Your task to perform on an android device: change alarm snooze length Image 0: 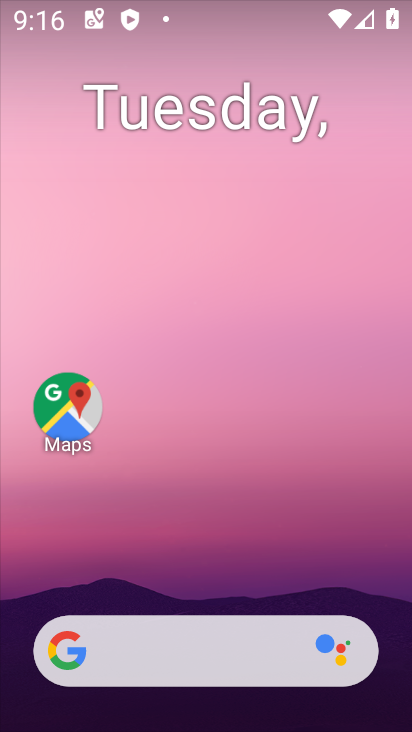
Step 0: drag from (213, 615) to (182, 50)
Your task to perform on an android device: change alarm snooze length Image 1: 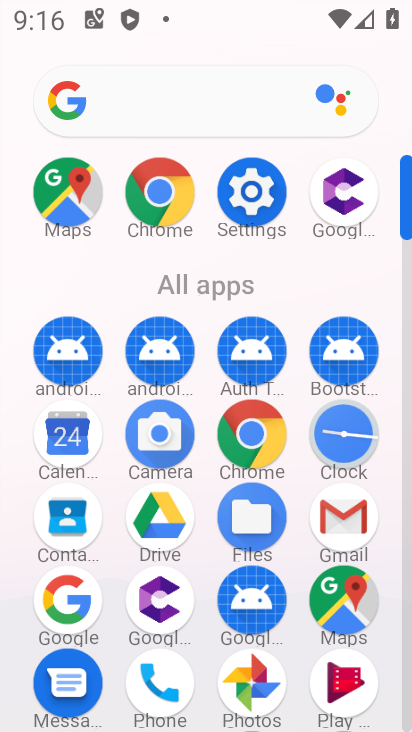
Step 1: click (339, 422)
Your task to perform on an android device: change alarm snooze length Image 2: 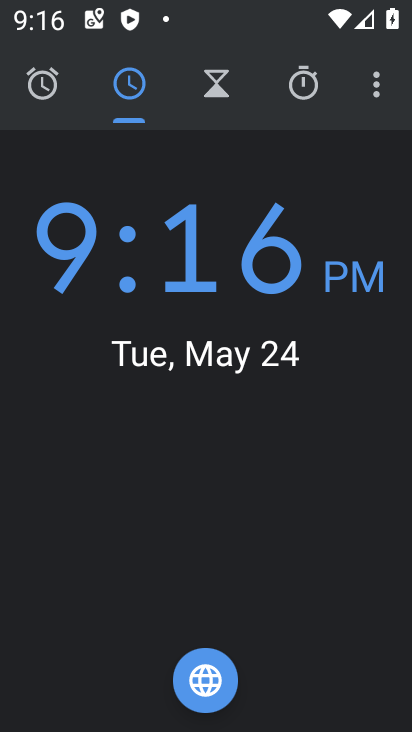
Step 2: click (360, 90)
Your task to perform on an android device: change alarm snooze length Image 3: 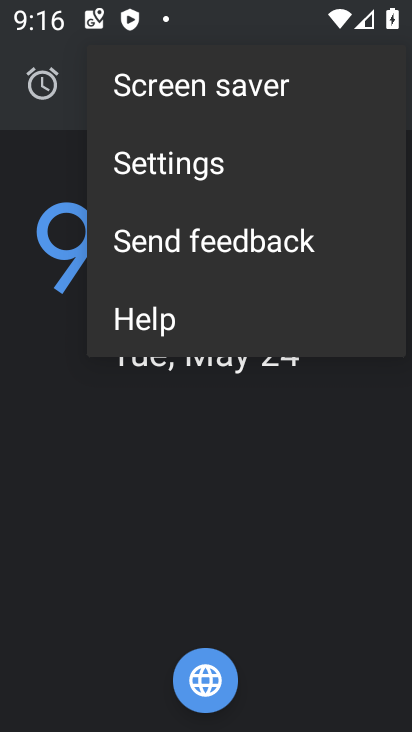
Step 3: click (179, 156)
Your task to perform on an android device: change alarm snooze length Image 4: 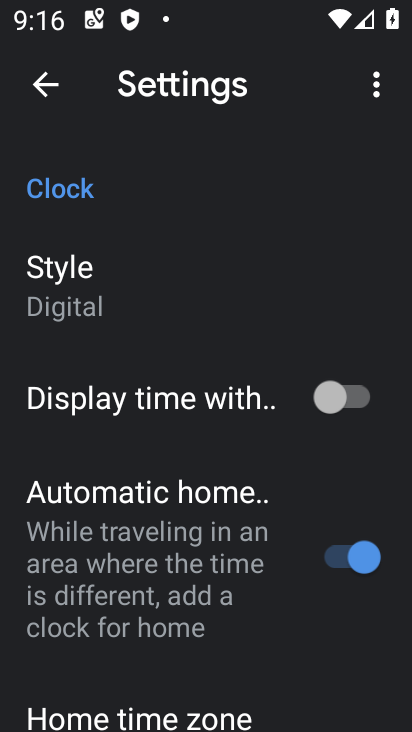
Step 4: drag from (247, 647) to (220, 190)
Your task to perform on an android device: change alarm snooze length Image 5: 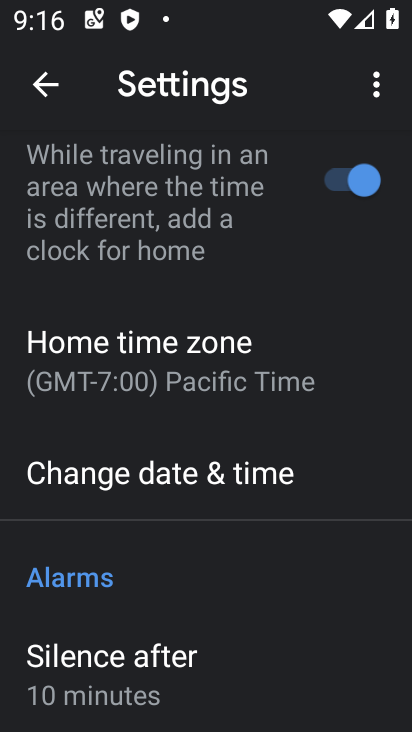
Step 5: drag from (131, 656) to (127, 255)
Your task to perform on an android device: change alarm snooze length Image 6: 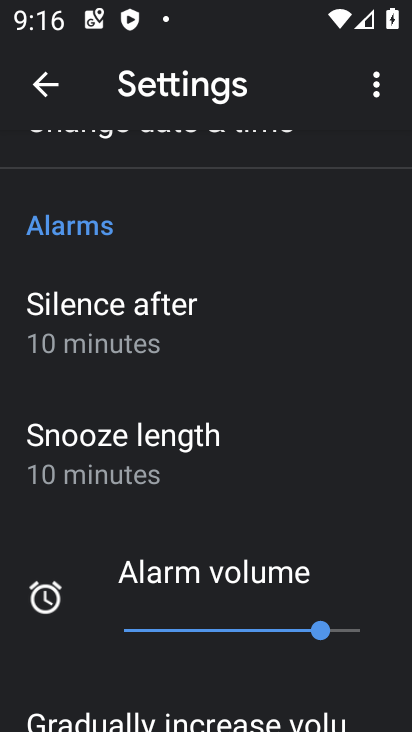
Step 6: click (106, 438)
Your task to perform on an android device: change alarm snooze length Image 7: 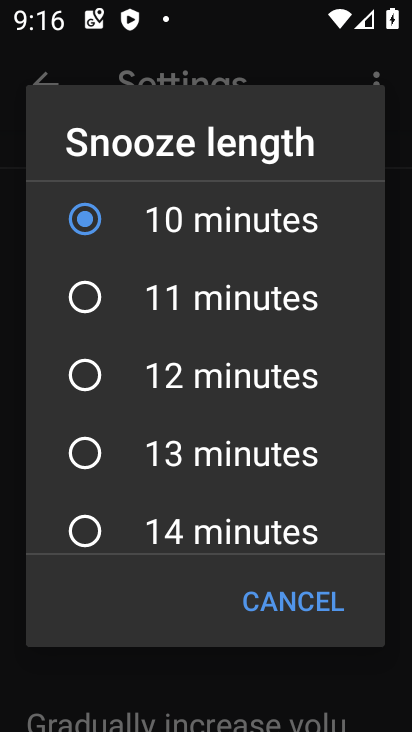
Step 7: click (155, 278)
Your task to perform on an android device: change alarm snooze length Image 8: 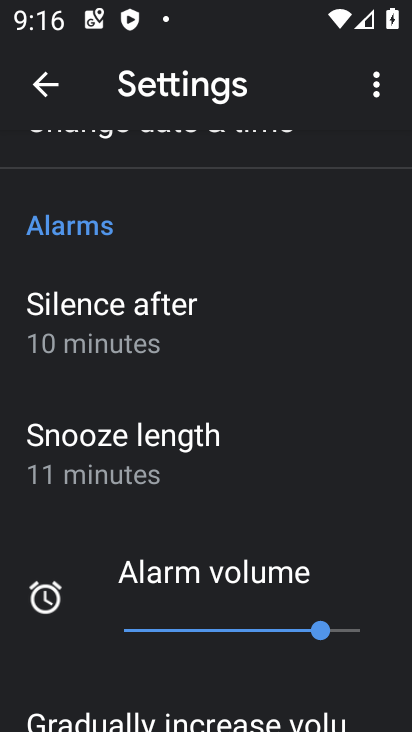
Step 8: task complete